Your task to perform on an android device: Open the map Image 0: 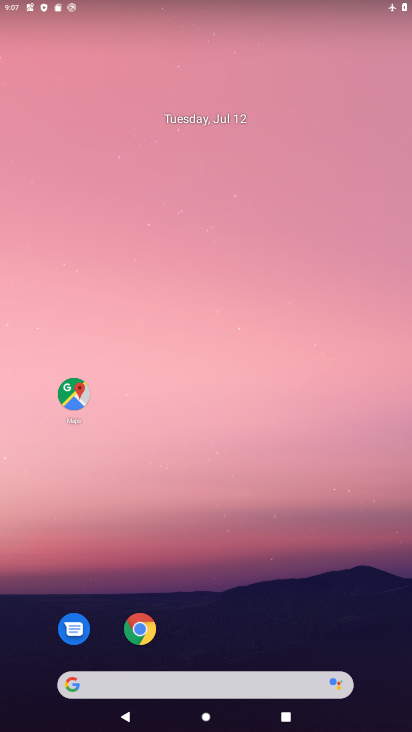
Step 0: drag from (182, 554) to (182, 211)
Your task to perform on an android device: Open the map Image 1: 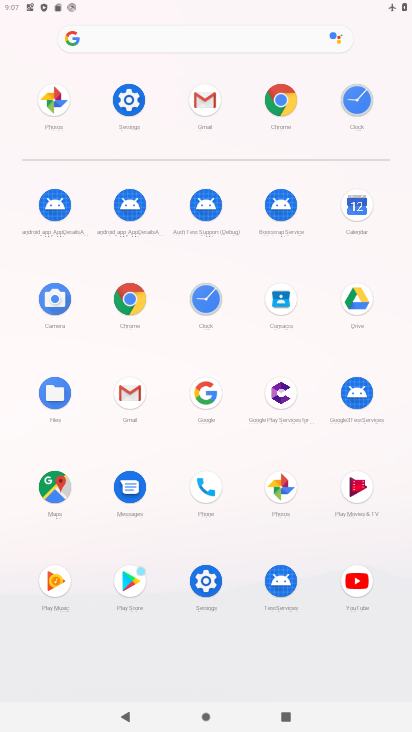
Step 1: click (51, 487)
Your task to perform on an android device: Open the map Image 2: 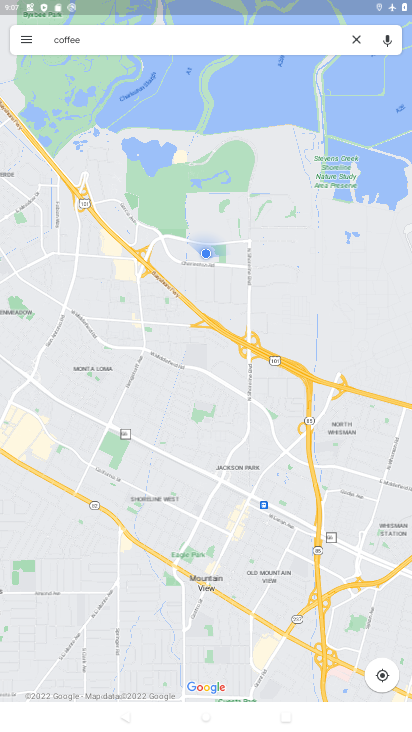
Step 2: task complete